Your task to perform on an android device: open chrome privacy settings Image 0: 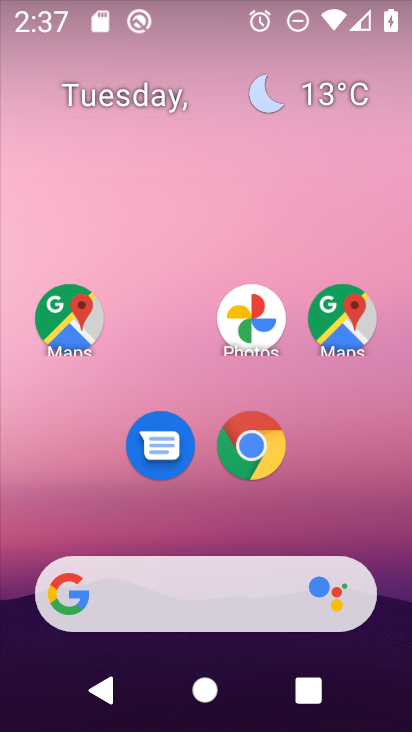
Step 0: drag from (382, 505) to (382, 181)
Your task to perform on an android device: open chrome privacy settings Image 1: 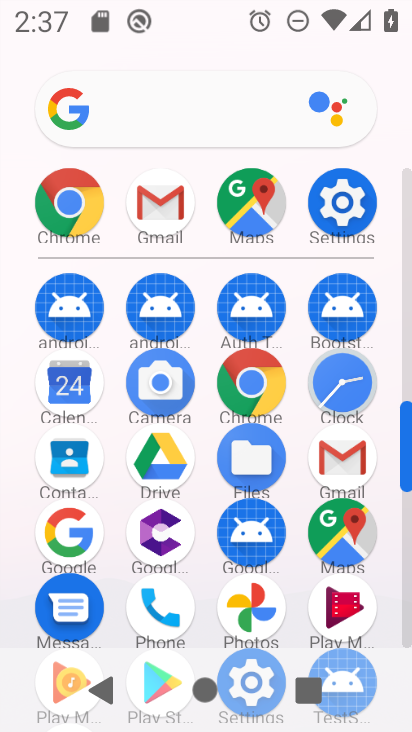
Step 1: drag from (383, 578) to (374, 399)
Your task to perform on an android device: open chrome privacy settings Image 2: 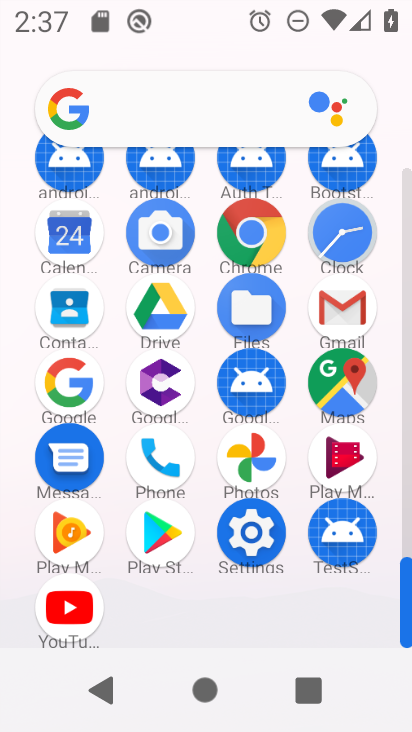
Step 2: click (251, 241)
Your task to perform on an android device: open chrome privacy settings Image 3: 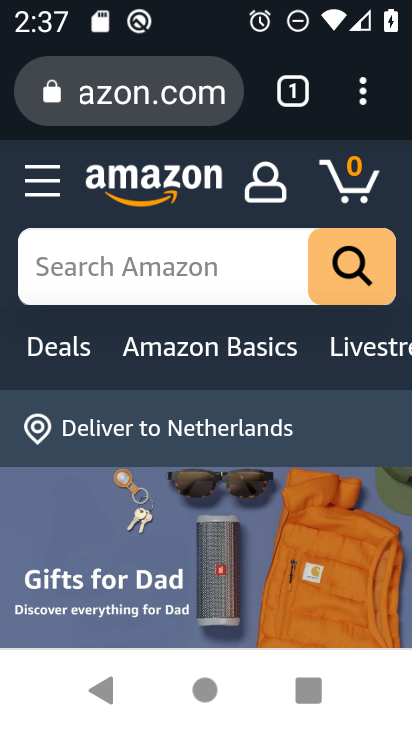
Step 3: click (365, 106)
Your task to perform on an android device: open chrome privacy settings Image 4: 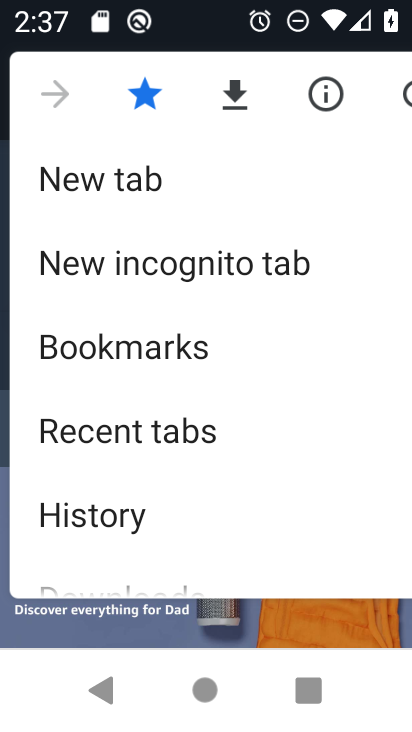
Step 4: drag from (341, 488) to (341, 410)
Your task to perform on an android device: open chrome privacy settings Image 5: 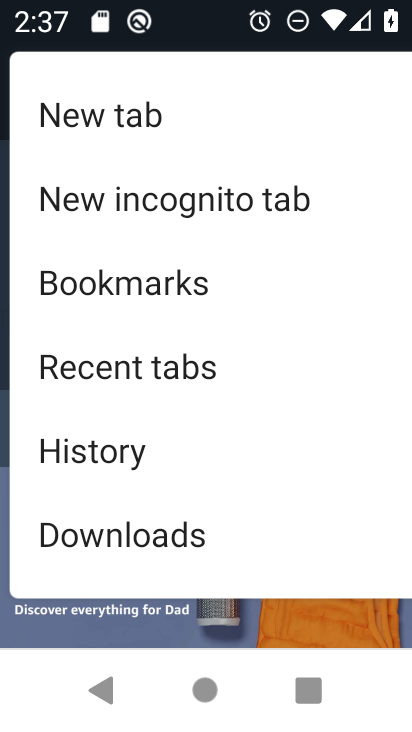
Step 5: drag from (341, 495) to (352, 421)
Your task to perform on an android device: open chrome privacy settings Image 6: 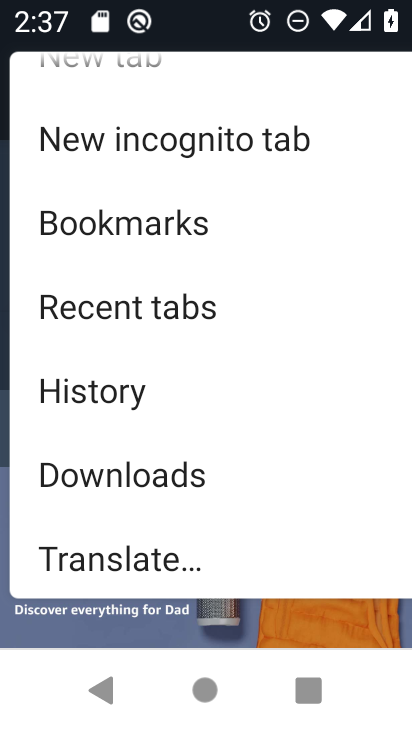
Step 6: drag from (347, 497) to (355, 416)
Your task to perform on an android device: open chrome privacy settings Image 7: 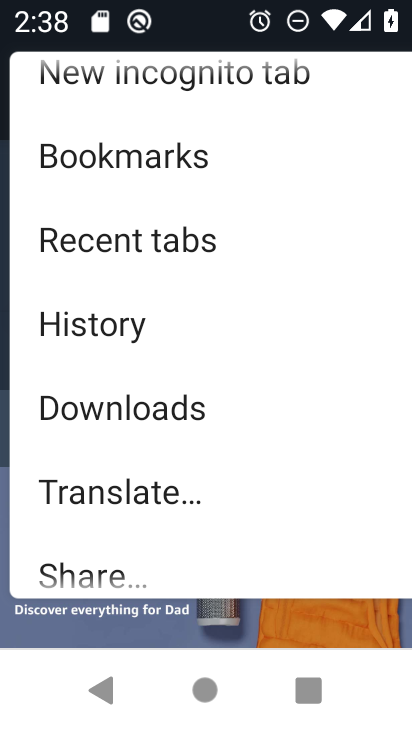
Step 7: drag from (348, 495) to (348, 420)
Your task to perform on an android device: open chrome privacy settings Image 8: 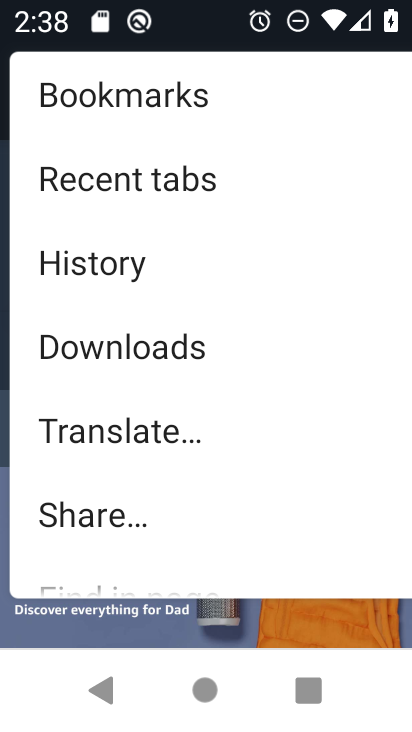
Step 8: drag from (334, 499) to (341, 418)
Your task to perform on an android device: open chrome privacy settings Image 9: 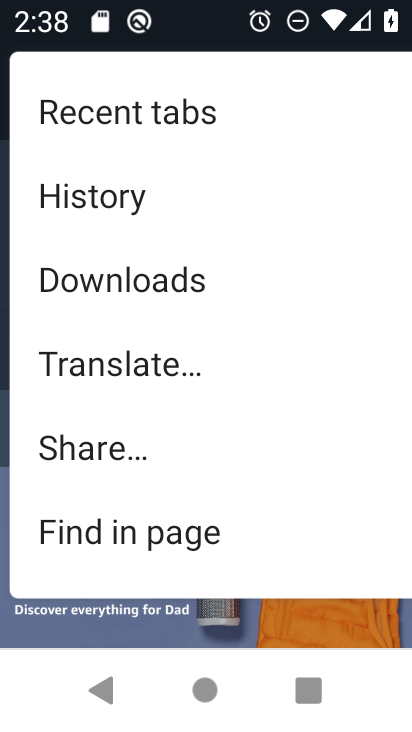
Step 9: drag from (323, 494) to (330, 414)
Your task to perform on an android device: open chrome privacy settings Image 10: 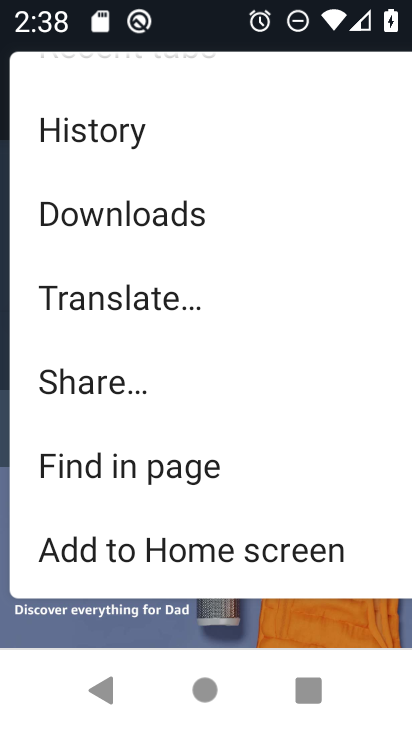
Step 10: drag from (326, 479) to (330, 398)
Your task to perform on an android device: open chrome privacy settings Image 11: 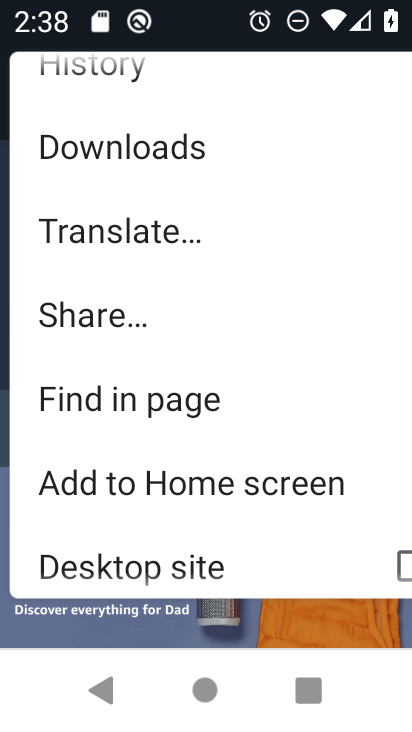
Step 11: drag from (324, 509) to (324, 424)
Your task to perform on an android device: open chrome privacy settings Image 12: 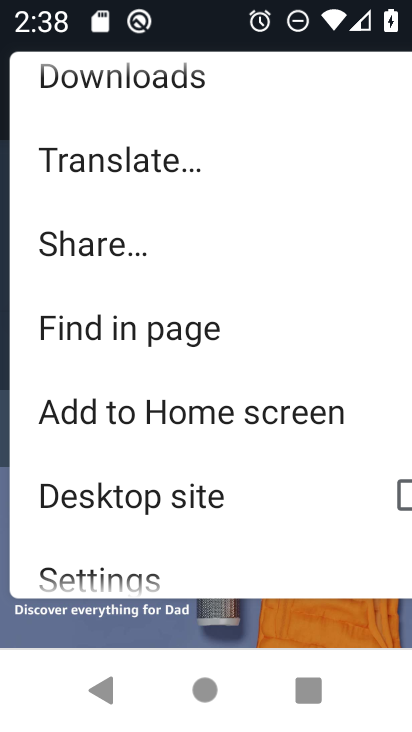
Step 12: drag from (306, 525) to (306, 438)
Your task to perform on an android device: open chrome privacy settings Image 13: 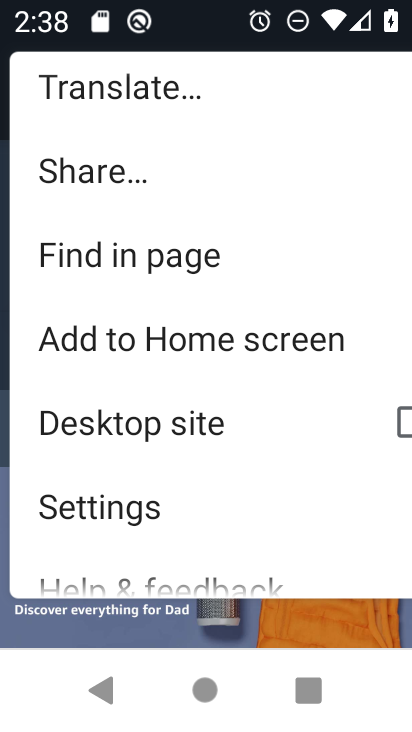
Step 13: click (209, 523)
Your task to perform on an android device: open chrome privacy settings Image 14: 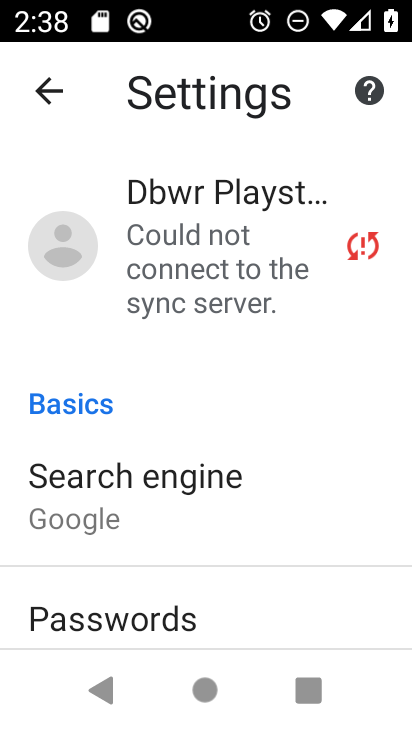
Step 14: drag from (326, 570) to (325, 494)
Your task to perform on an android device: open chrome privacy settings Image 15: 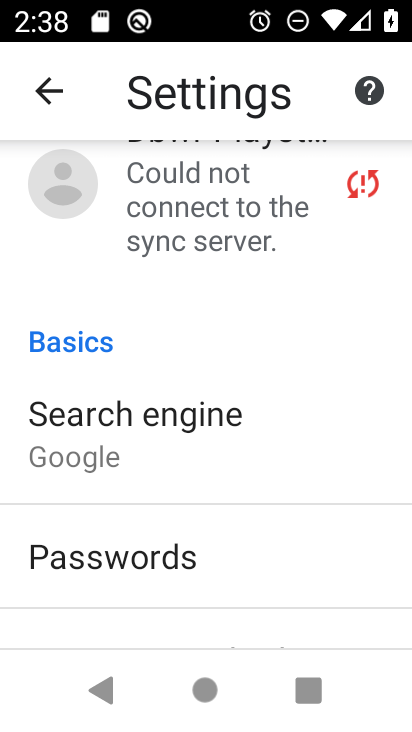
Step 15: drag from (354, 505) to (357, 437)
Your task to perform on an android device: open chrome privacy settings Image 16: 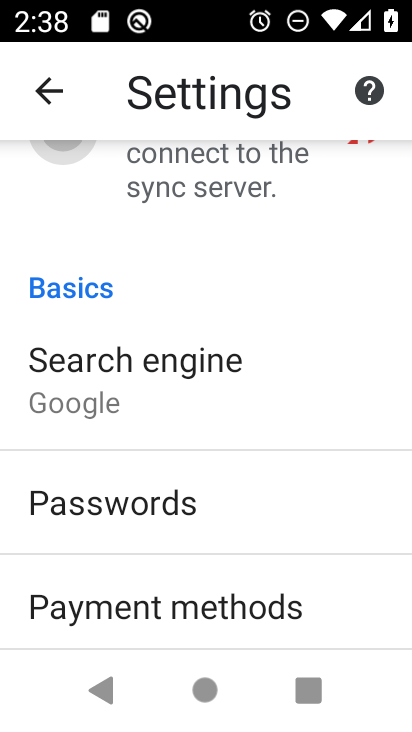
Step 16: drag from (364, 489) to (366, 409)
Your task to perform on an android device: open chrome privacy settings Image 17: 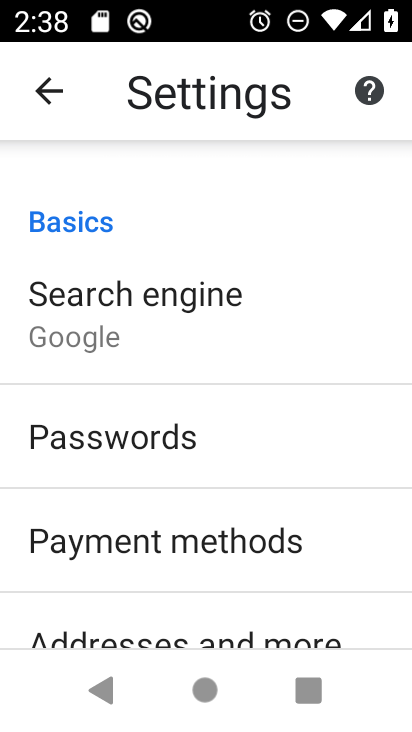
Step 17: drag from (344, 589) to (344, 486)
Your task to perform on an android device: open chrome privacy settings Image 18: 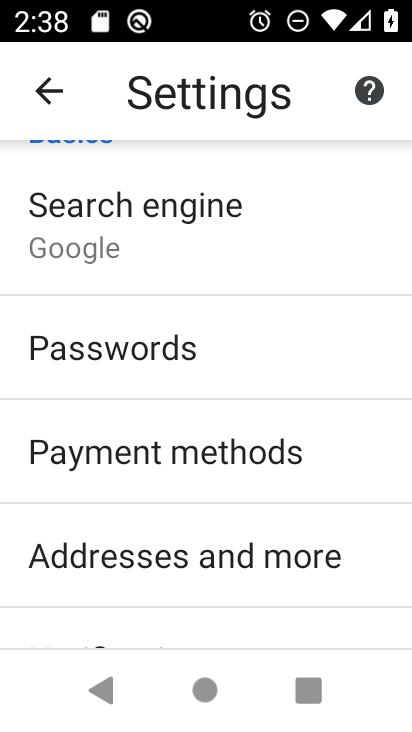
Step 18: drag from (373, 586) to (368, 458)
Your task to perform on an android device: open chrome privacy settings Image 19: 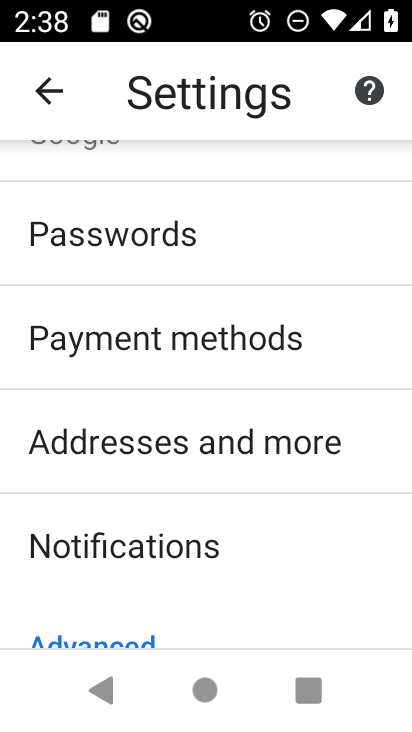
Step 19: drag from (337, 654) to (337, 510)
Your task to perform on an android device: open chrome privacy settings Image 20: 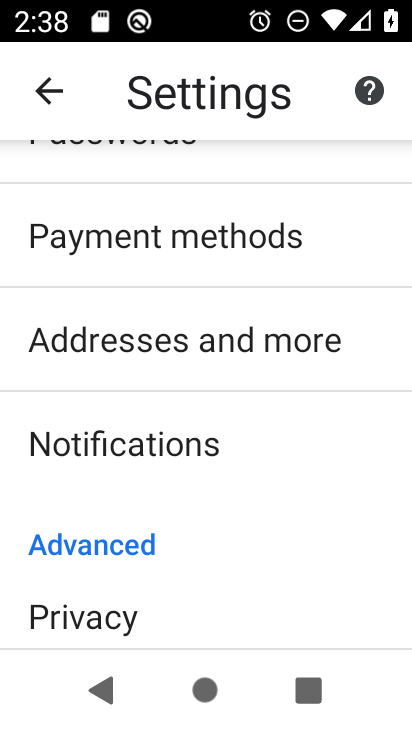
Step 20: drag from (354, 588) to (351, 466)
Your task to perform on an android device: open chrome privacy settings Image 21: 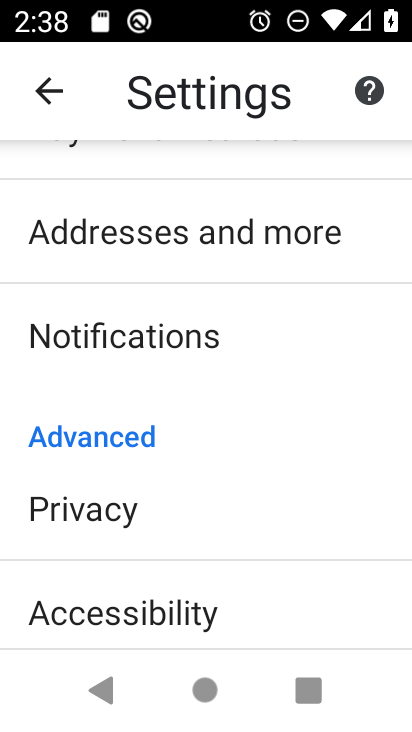
Step 21: drag from (335, 618) to (337, 505)
Your task to perform on an android device: open chrome privacy settings Image 22: 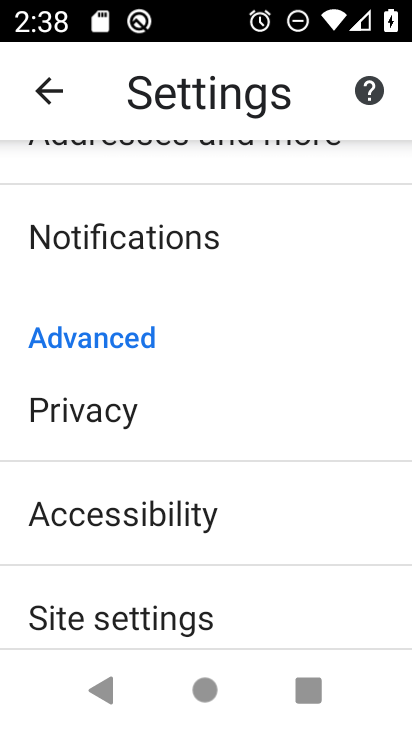
Step 22: click (196, 431)
Your task to perform on an android device: open chrome privacy settings Image 23: 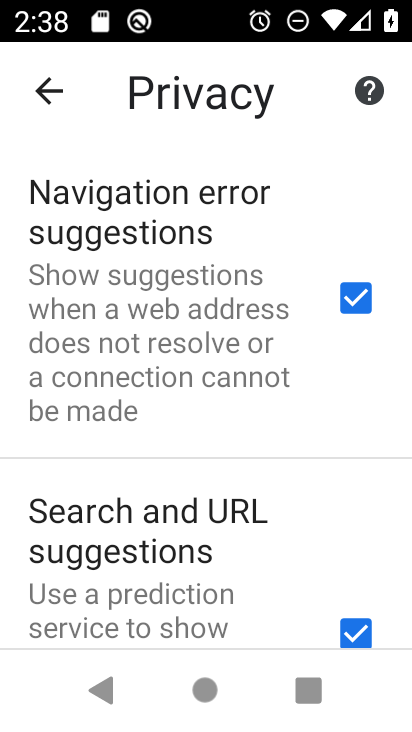
Step 23: task complete